Your task to perform on an android device: change notification settings in the gmail app Image 0: 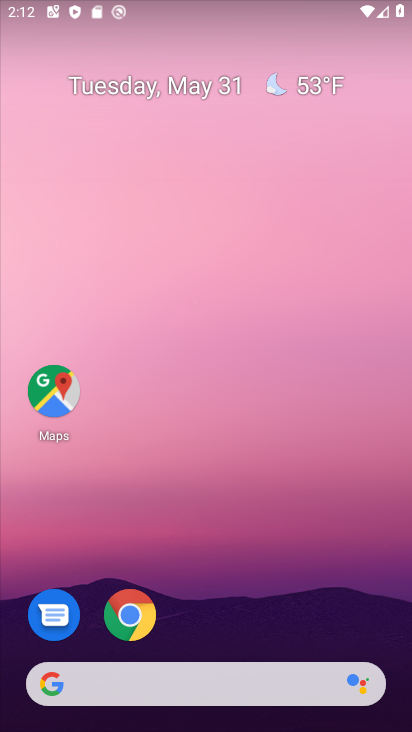
Step 0: drag from (173, 597) to (214, 125)
Your task to perform on an android device: change notification settings in the gmail app Image 1: 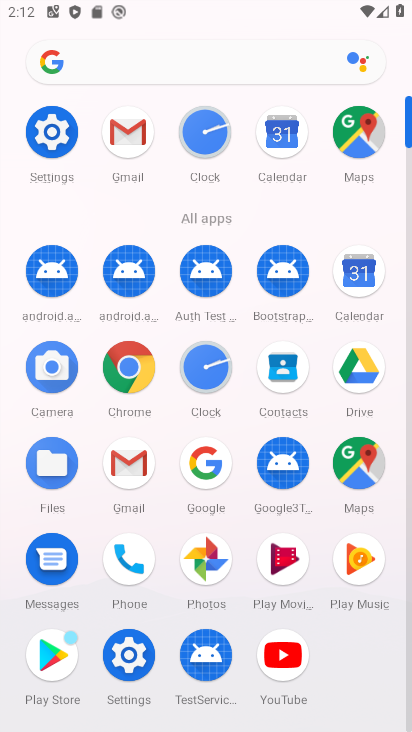
Step 1: click (126, 133)
Your task to perform on an android device: change notification settings in the gmail app Image 2: 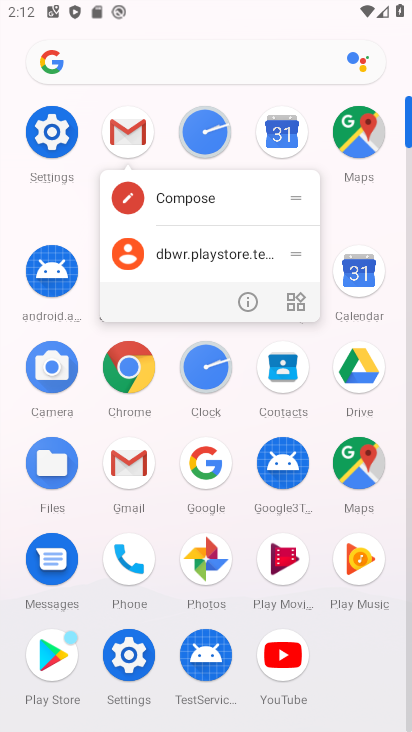
Step 2: click (242, 301)
Your task to perform on an android device: change notification settings in the gmail app Image 3: 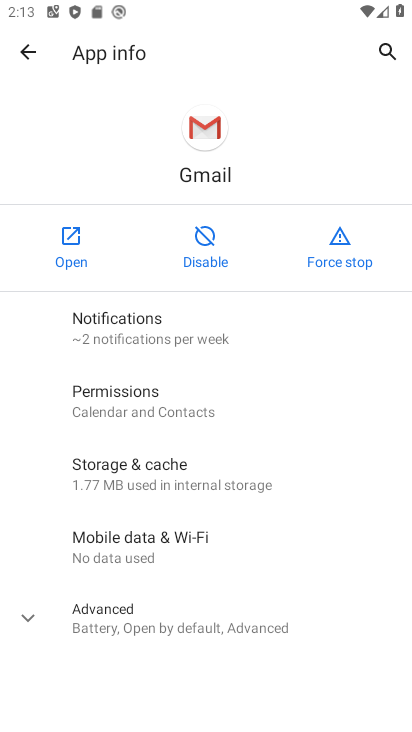
Step 3: click (194, 330)
Your task to perform on an android device: change notification settings in the gmail app Image 4: 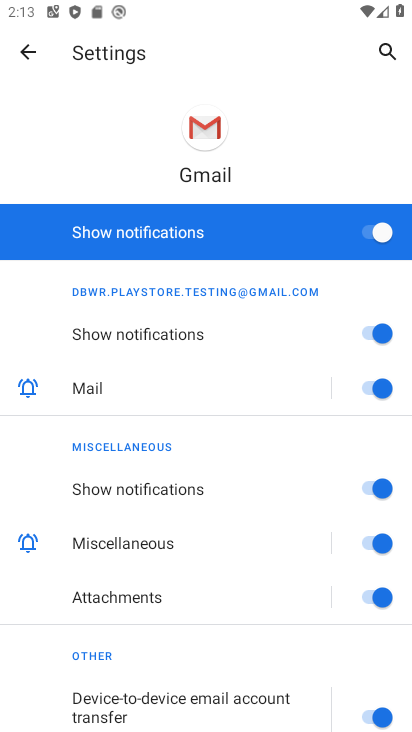
Step 4: drag from (198, 599) to (241, 285)
Your task to perform on an android device: change notification settings in the gmail app Image 5: 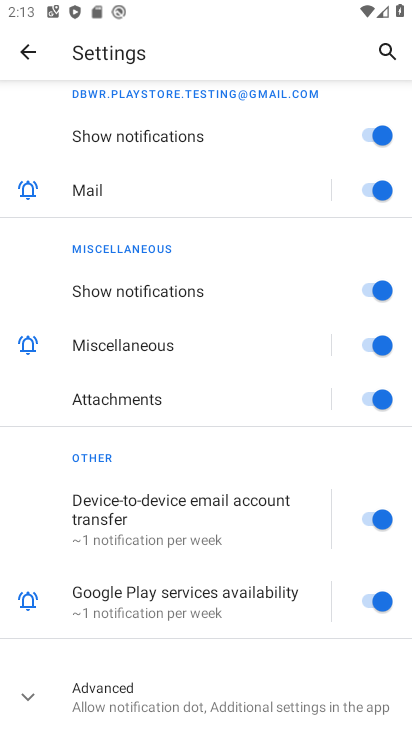
Step 5: drag from (208, 291) to (213, 593)
Your task to perform on an android device: change notification settings in the gmail app Image 6: 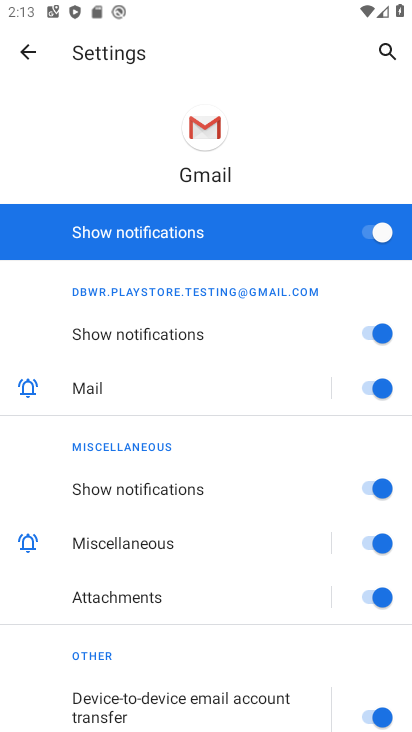
Step 6: click (374, 330)
Your task to perform on an android device: change notification settings in the gmail app Image 7: 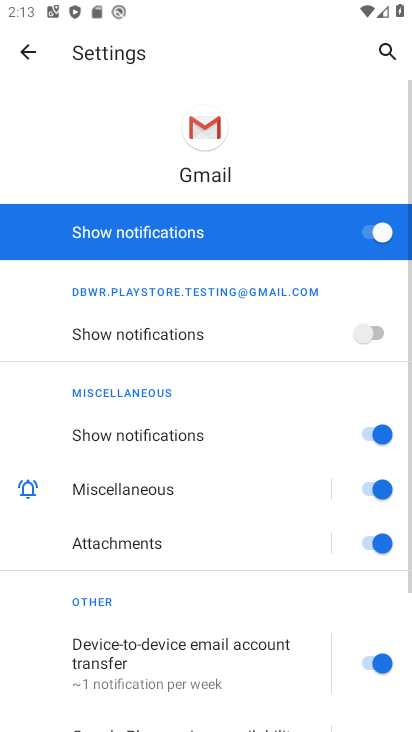
Step 7: task complete